Your task to perform on an android device: Open Android settings Image 0: 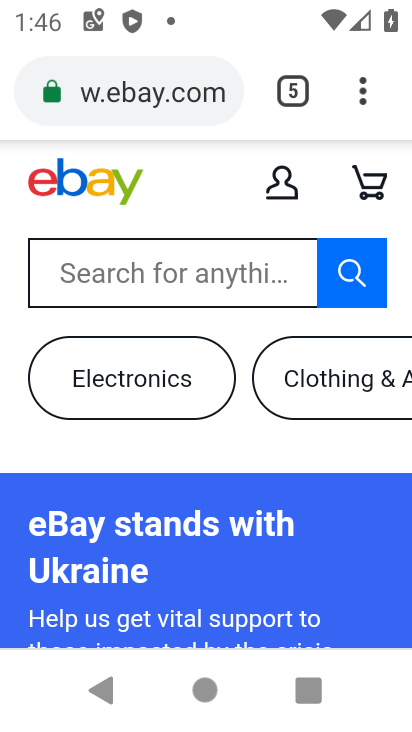
Step 0: press home button
Your task to perform on an android device: Open Android settings Image 1: 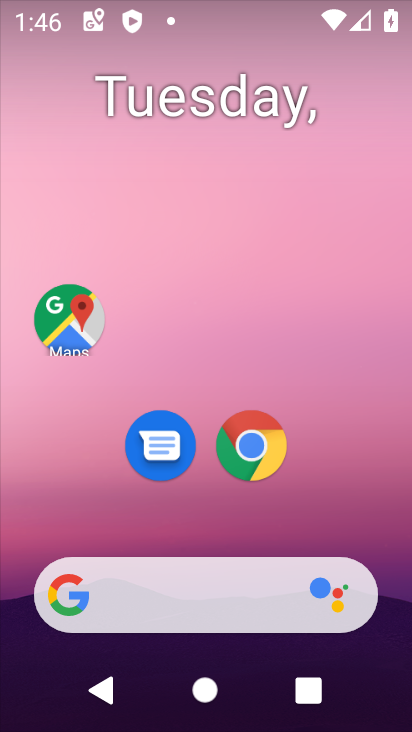
Step 1: drag from (346, 472) to (202, 35)
Your task to perform on an android device: Open Android settings Image 2: 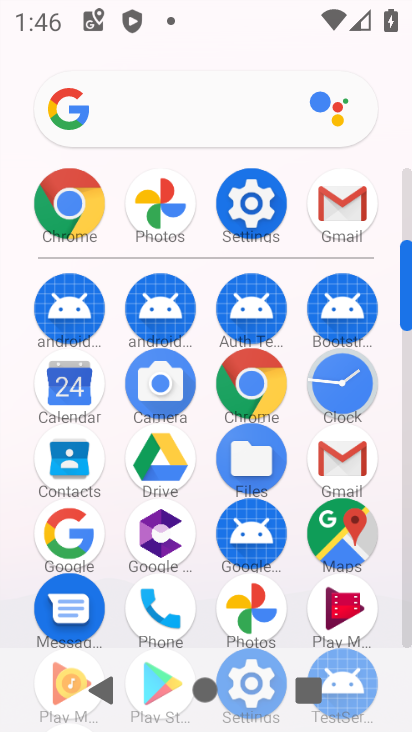
Step 2: click (262, 206)
Your task to perform on an android device: Open Android settings Image 3: 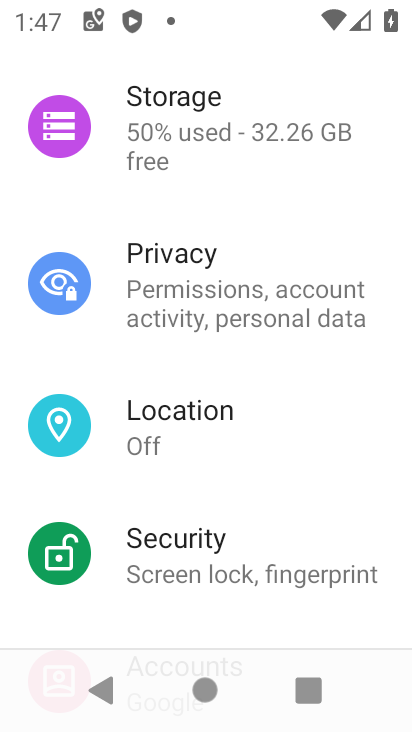
Step 3: task complete